Your task to perform on an android device: Toggle the flashlight Image 0: 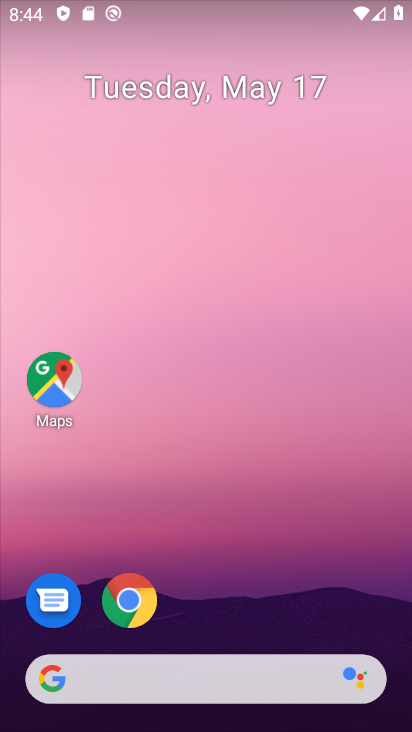
Step 0: drag from (288, 487) to (283, 106)
Your task to perform on an android device: Toggle the flashlight Image 1: 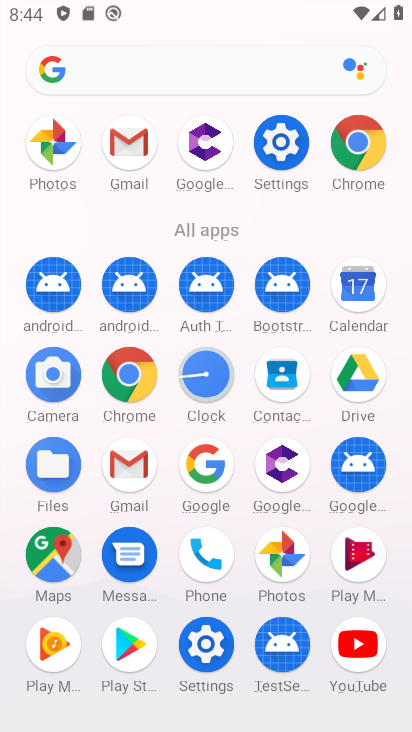
Step 1: click (272, 150)
Your task to perform on an android device: Toggle the flashlight Image 2: 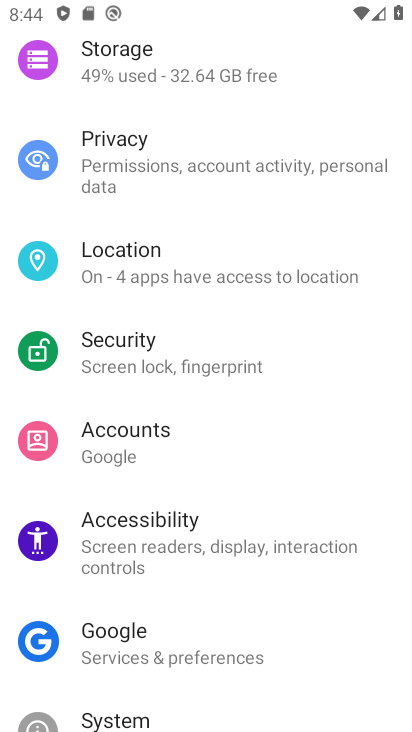
Step 2: drag from (249, 226) to (221, 698)
Your task to perform on an android device: Toggle the flashlight Image 3: 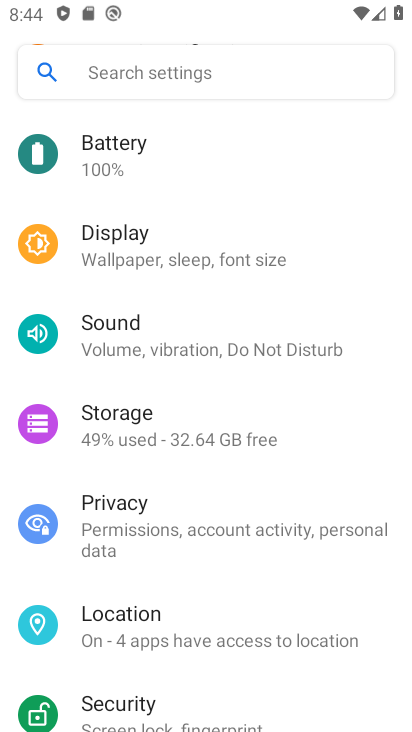
Step 3: drag from (227, 195) to (236, 489)
Your task to perform on an android device: Toggle the flashlight Image 4: 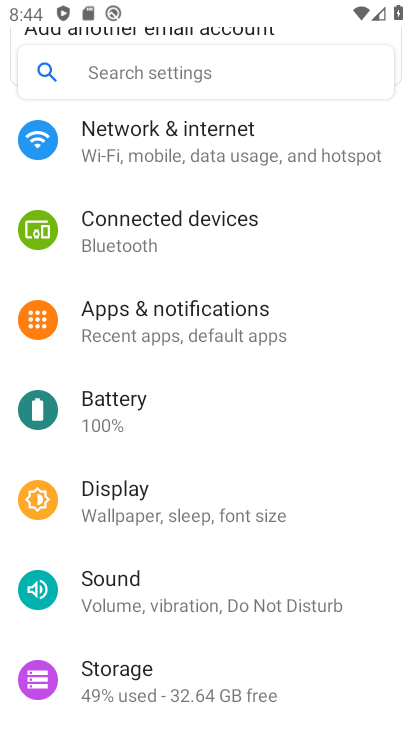
Step 4: click (179, 323)
Your task to perform on an android device: Toggle the flashlight Image 5: 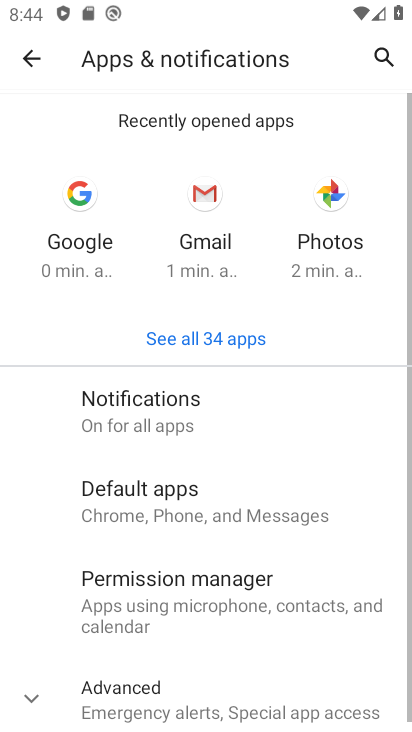
Step 5: drag from (192, 617) to (240, 277)
Your task to perform on an android device: Toggle the flashlight Image 6: 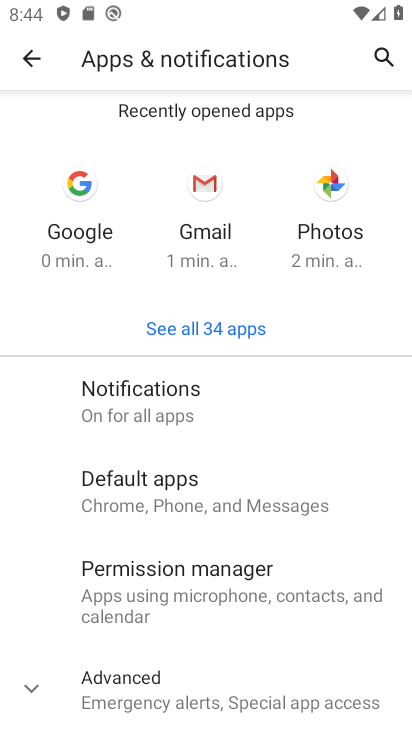
Step 6: click (193, 682)
Your task to perform on an android device: Toggle the flashlight Image 7: 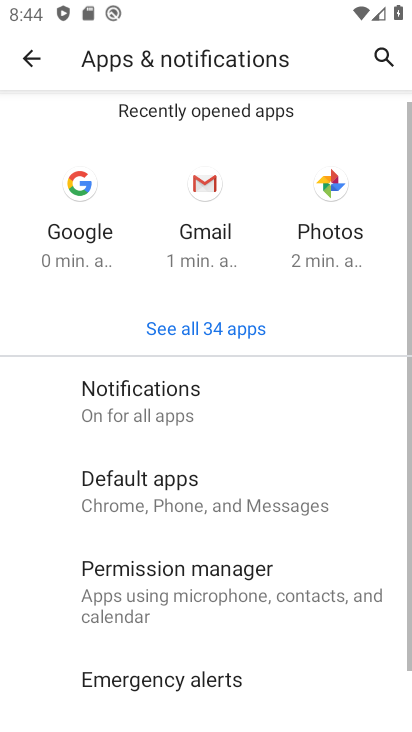
Step 7: drag from (192, 646) to (211, 306)
Your task to perform on an android device: Toggle the flashlight Image 8: 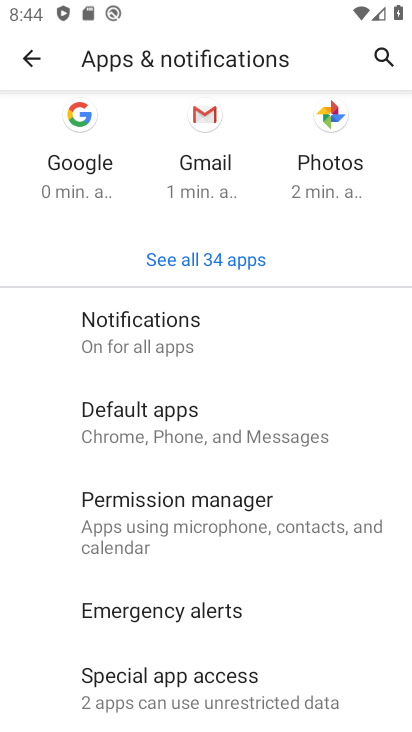
Step 8: click (160, 678)
Your task to perform on an android device: Toggle the flashlight Image 9: 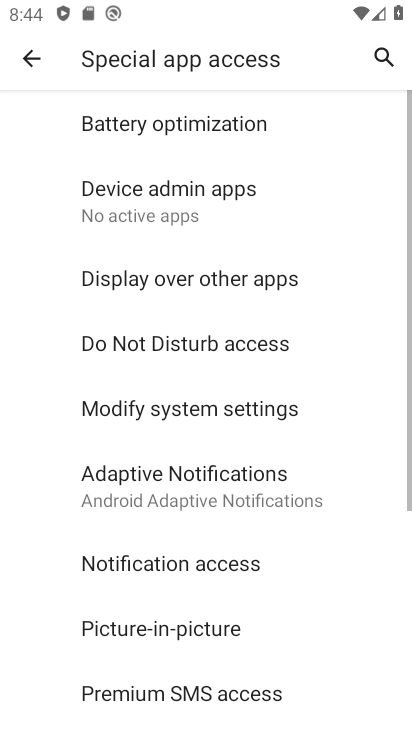
Step 9: task complete